Your task to perform on an android device: Open settings Image 0: 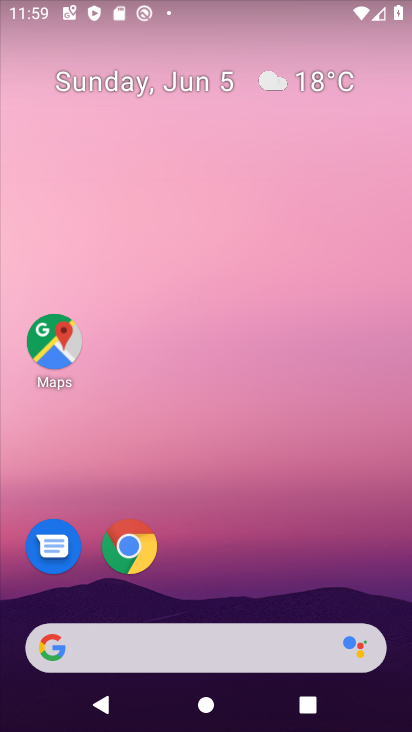
Step 0: drag from (253, 574) to (246, 120)
Your task to perform on an android device: Open settings Image 1: 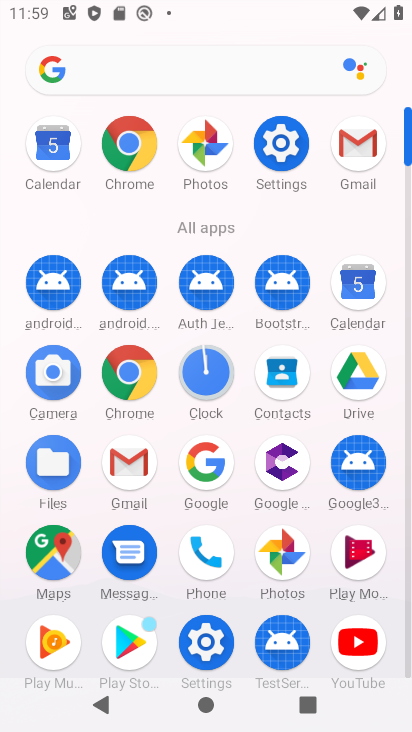
Step 1: click (284, 146)
Your task to perform on an android device: Open settings Image 2: 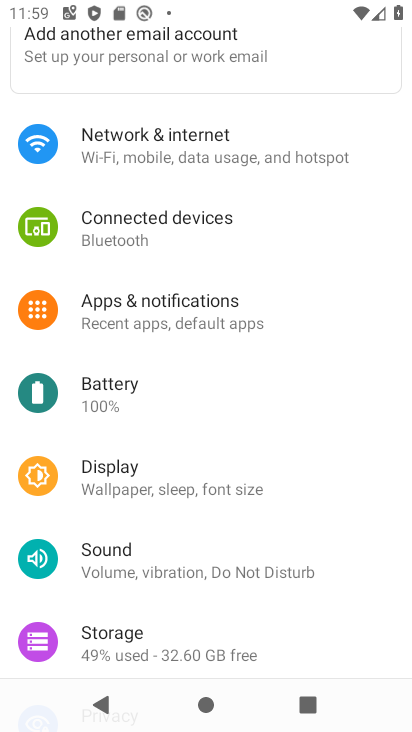
Step 2: task complete